Your task to perform on an android device: turn on translation in the chrome app Image 0: 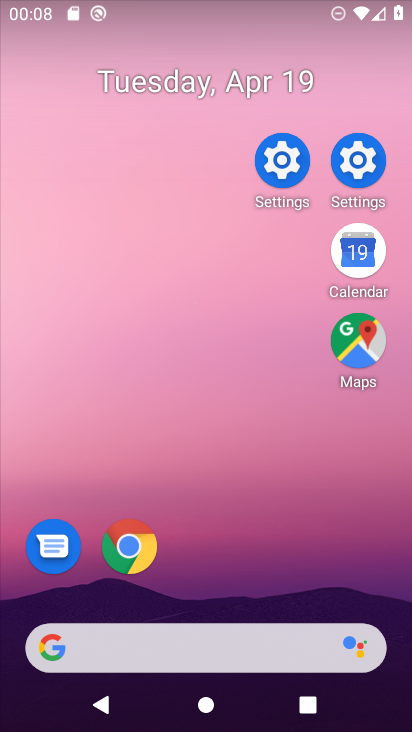
Step 0: drag from (261, 717) to (235, 255)
Your task to perform on an android device: turn on translation in the chrome app Image 1: 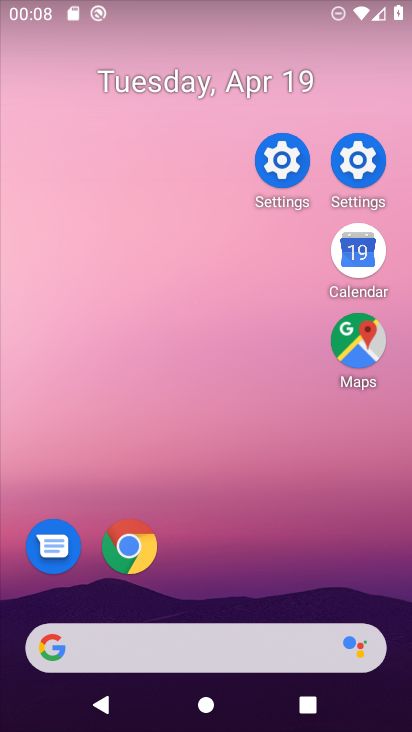
Step 1: drag from (182, 544) to (148, 135)
Your task to perform on an android device: turn on translation in the chrome app Image 2: 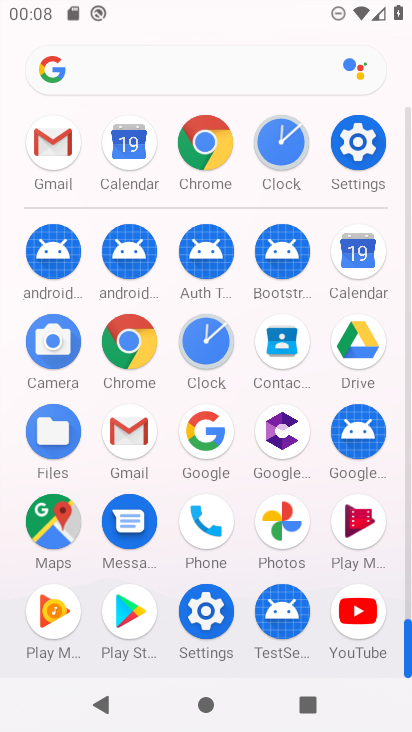
Step 2: click (199, 143)
Your task to perform on an android device: turn on translation in the chrome app Image 3: 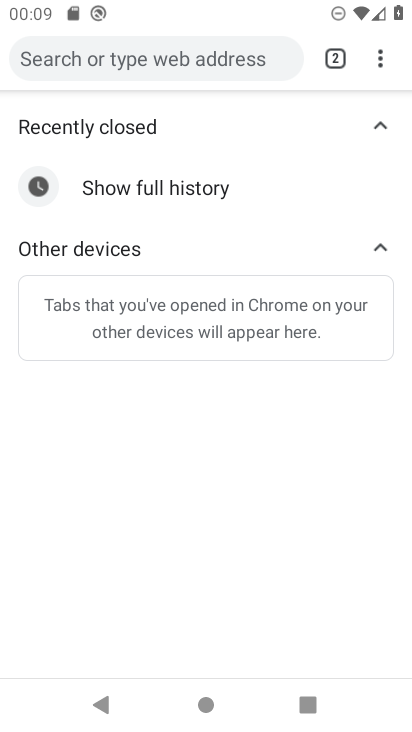
Step 3: click (380, 58)
Your task to perform on an android device: turn on translation in the chrome app Image 4: 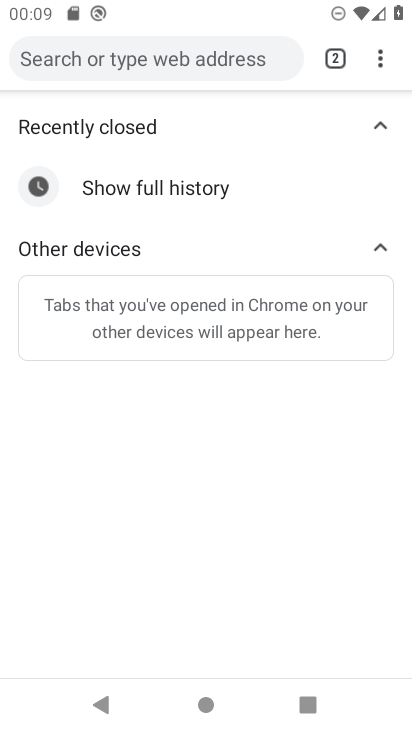
Step 4: click (381, 57)
Your task to perform on an android device: turn on translation in the chrome app Image 5: 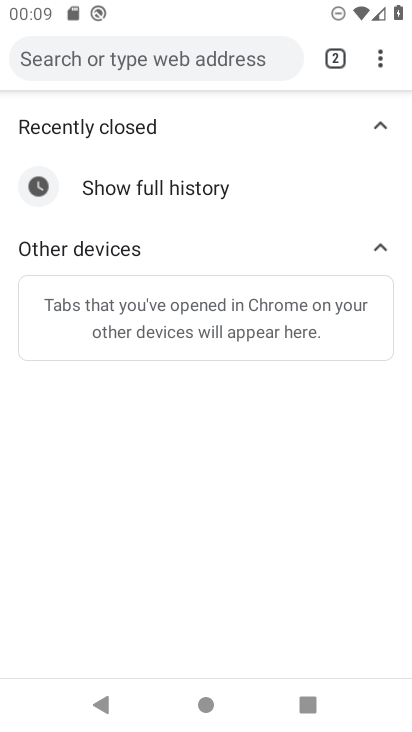
Step 5: click (376, 57)
Your task to perform on an android device: turn on translation in the chrome app Image 6: 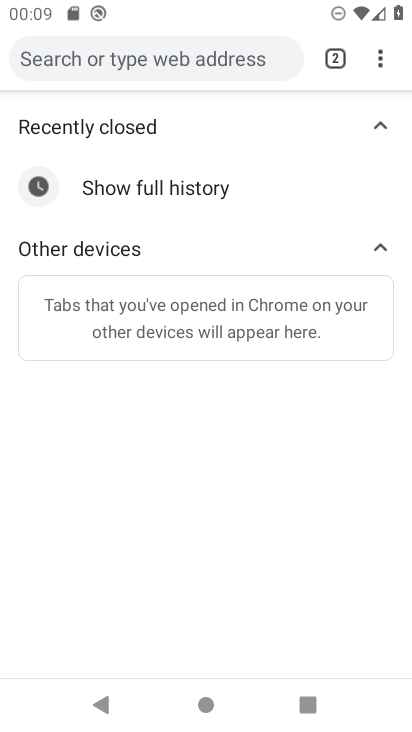
Step 6: click (378, 62)
Your task to perform on an android device: turn on translation in the chrome app Image 7: 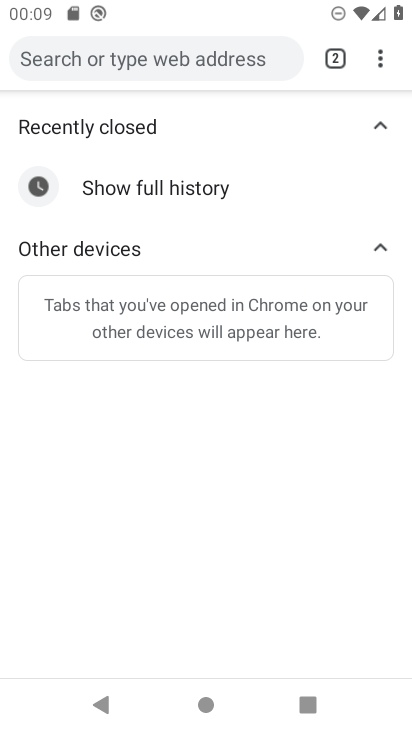
Step 7: click (376, 65)
Your task to perform on an android device: turn on translation in the chrome app Image 8: 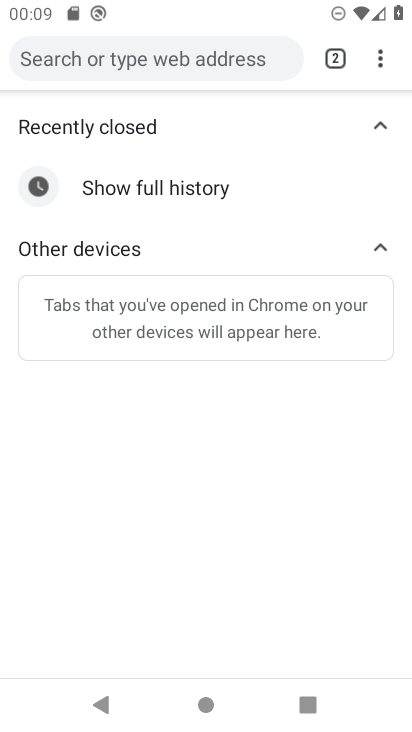
Step 8: click (376, 65)
Your task to perform on an android device: turn on translation in the chrome app Image 9: 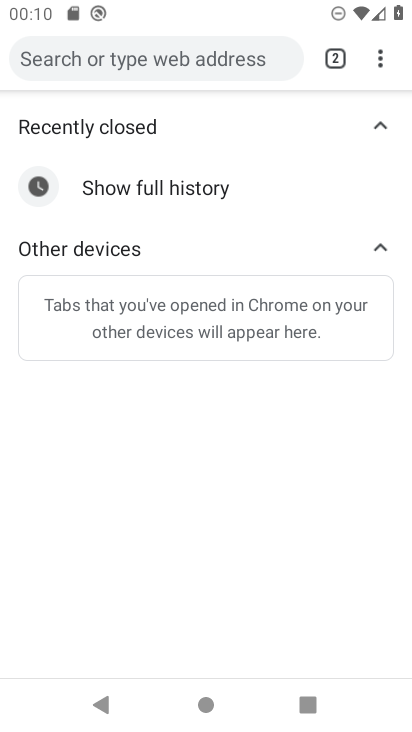
Step 9: click (377, 64)
Your task to perform on an android device: turn on translation in the chrome app Image 10: 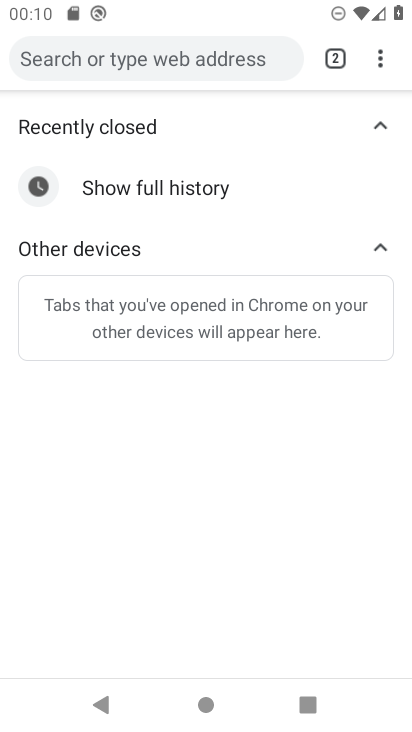
Step 10: click (381, 57)
Your task to perform on an android device: turn on translation in the chrome app Image 11: 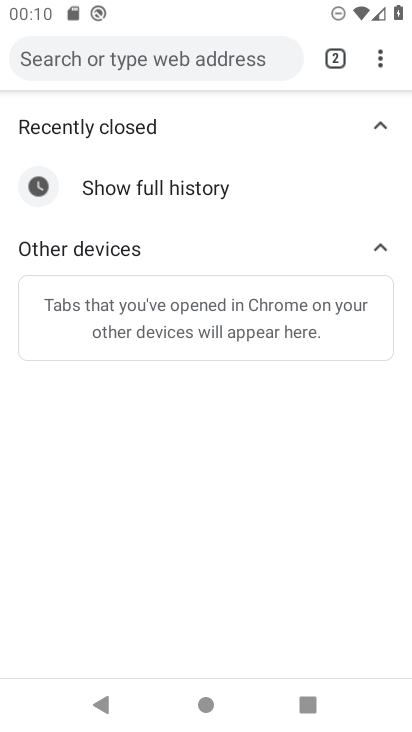
Step 11: click (372, 54)
Your task to perform on an android device: turn on translation in the chrome app Image 12: 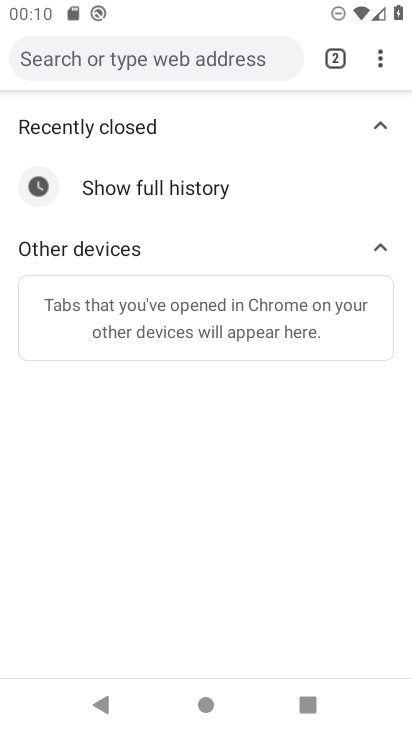
Step 12: click (367, 62)
Your task to perform on an android device: turn on translation in the chrome app Image 13: 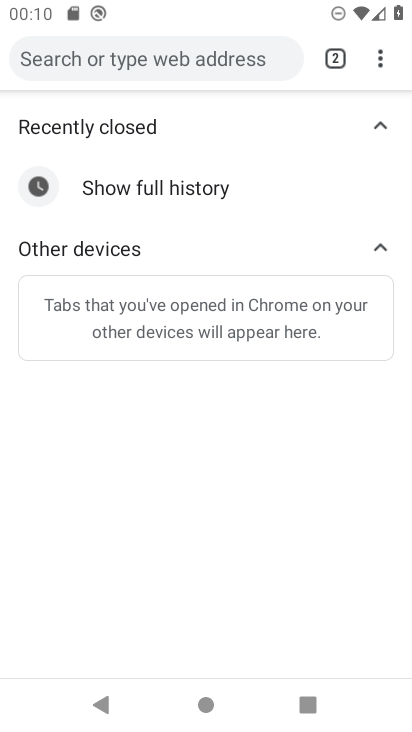
Step 13: click (368, 58)
Your task to perform on an android device: turn on translation in the chrome app Image 14: 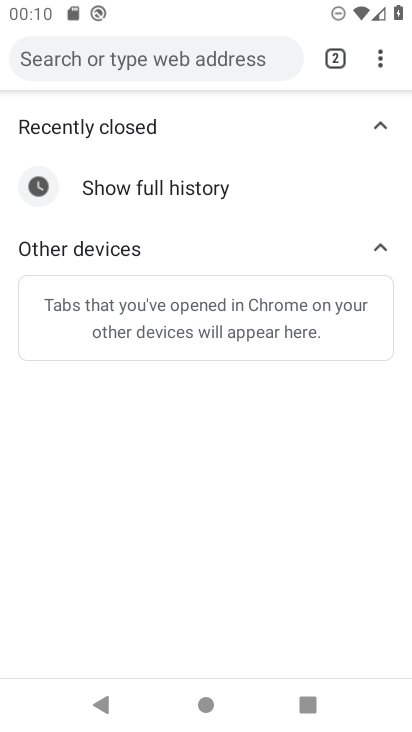
Step 14: click (376, 53)
Your task to perform on an android device: turn on translation in the chrome app Image 15: 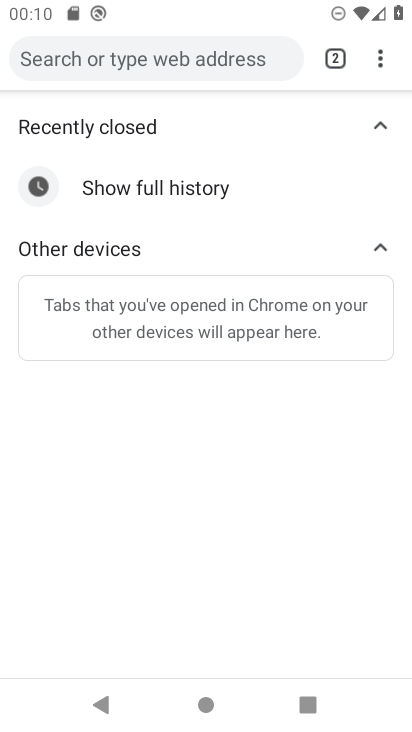
Step 15: click (376, 53)
Your task to perform on an android device: turn on translation in the chrome app Image 16: 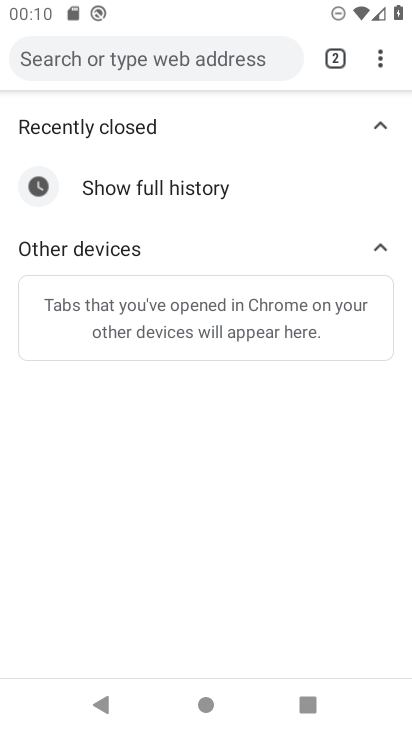
Step 16: click (375, 52)
Your task to perform on an android device: turn on translation in the chrome app Image 17: 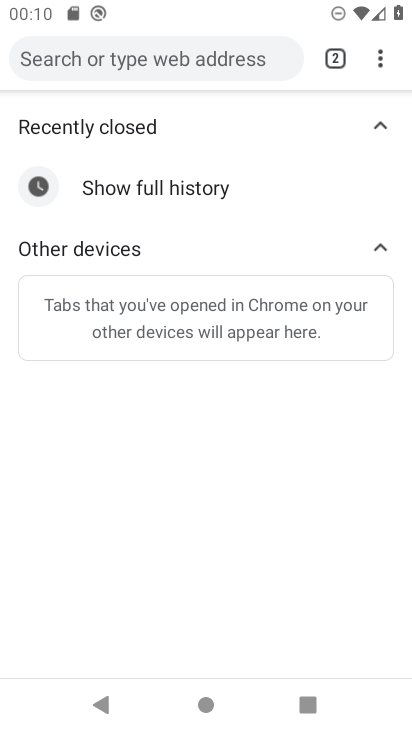
Step 17: click (374, 59)
Your task to perform on an android device: turn on translation in the chrome app Image 18: 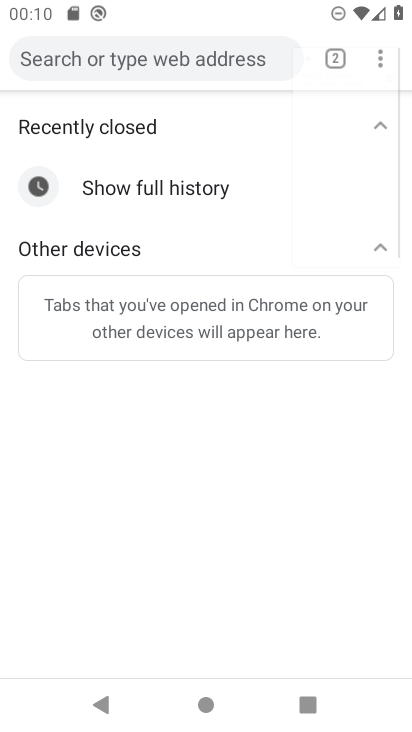
Step 18: click (374, 59)
Your task to perform on an android device: turn on translation in the chrome app Image 19: 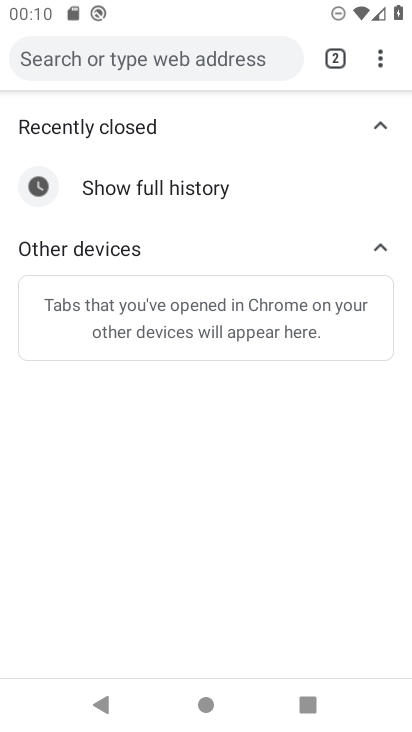
Step 19: click (381, 49)
Your task to perform on an android device: turn on translation in the chrome app Image 20: 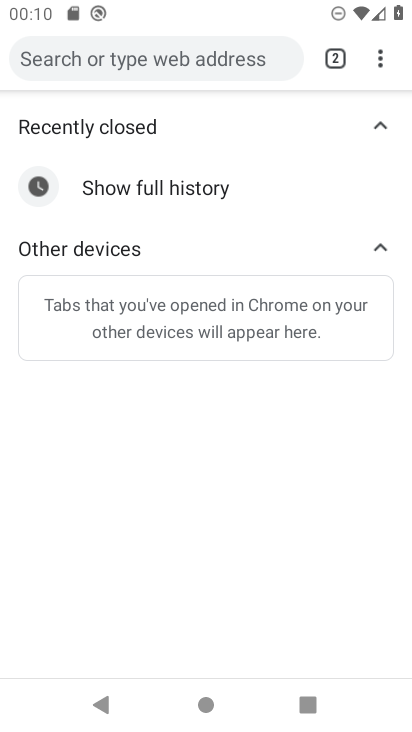
Step 20: click (381, 49)
Your task to perform on an android device: turn on translation in the chrome app Image 21: 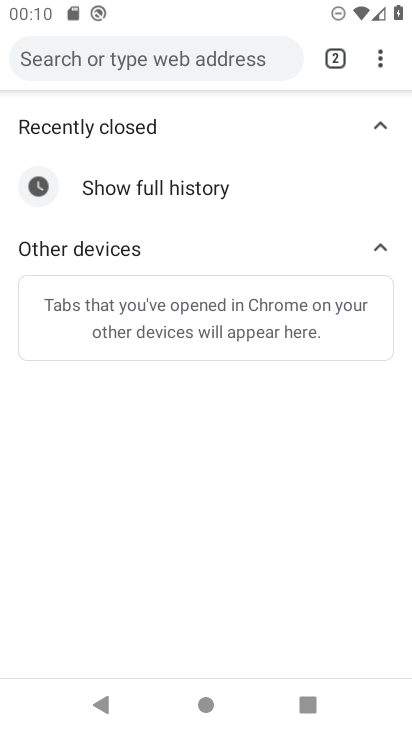
Step 21: click (379, 59)
Your task to perform on an android device: turn on translation in the chrome app Image 22: 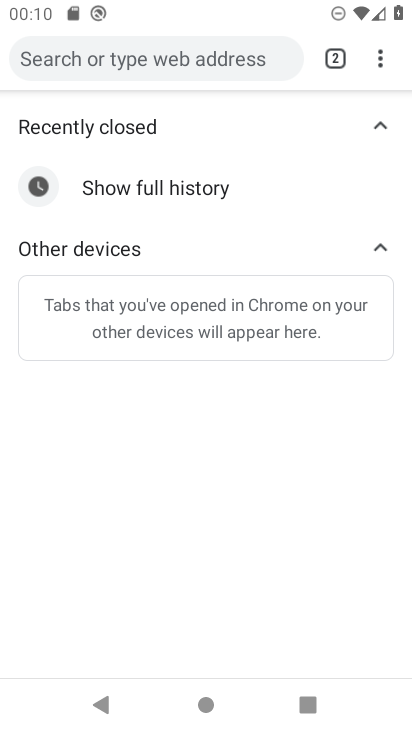
Step 22: click (379, 59)
Your task to perform on an android device: turn on translation in the chrome app Image 23: 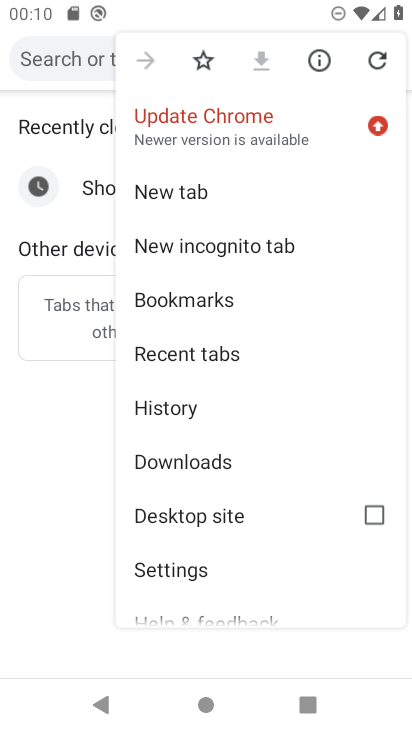
Step 23: drag from (237, 539) to (253, 162)
Your task to perform on an android device: turn on translation in the chrome app Image 24: 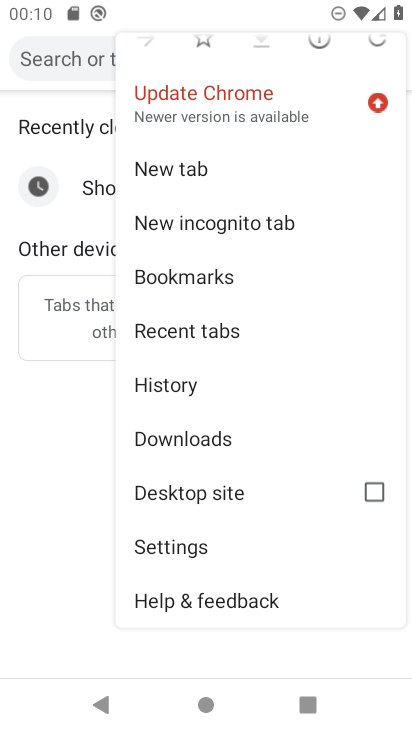
Step 24: click (165, 544)
Your task to perform on an android device: turn on translation in the chrome app Image 25: 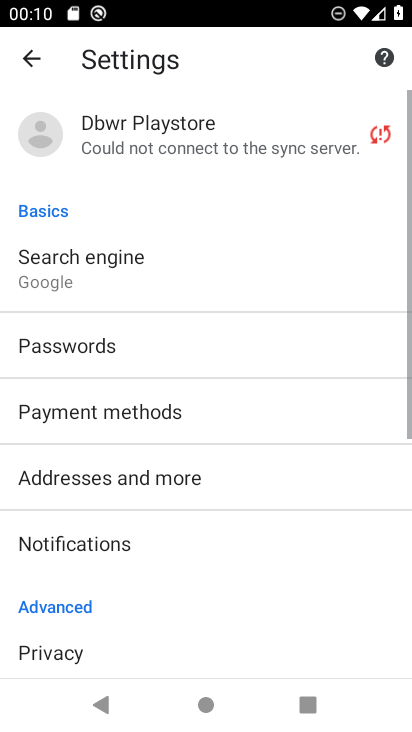
Step 25: drag from (197, 584) to (204, 217)
Your task to perform on an android device: turn on translation in the chrome app Image 26: 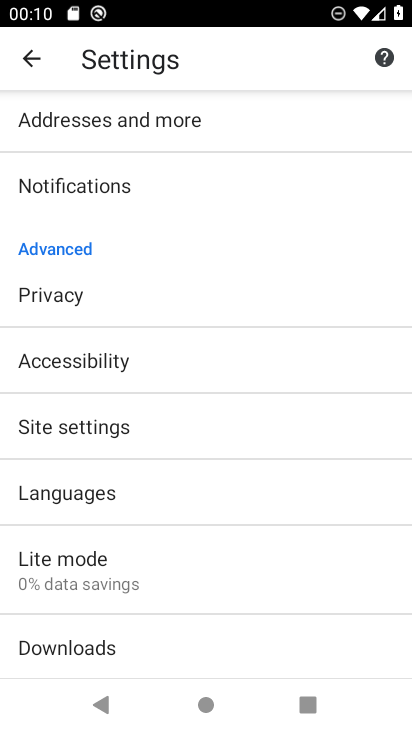
Step 26: click (85, 427)
Your task to perform on an android device: turn on translation in the chrome app Image 27: 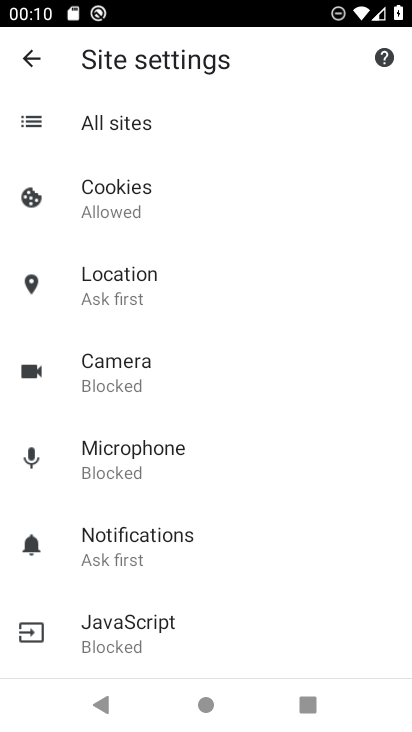
Step 27: drag from (186, 534) to (252, 241)
Your task to perform on an android device: turn on translation in the chrome app Image 28: 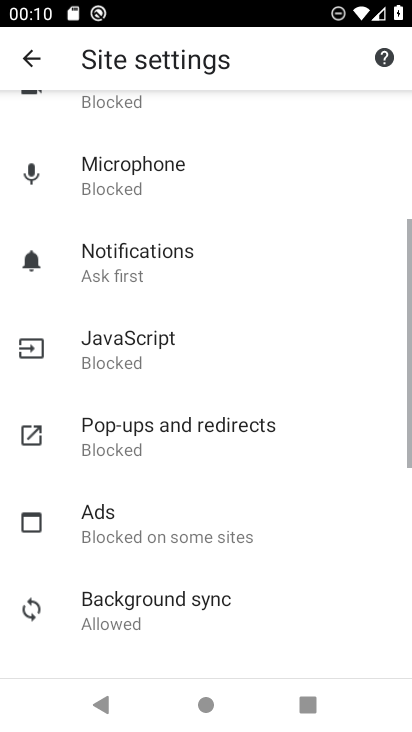
Step 28: drag from (142, 503) to (163, 269)
Your task to perform on an android device: turn on translation in the chrome app Image 29: 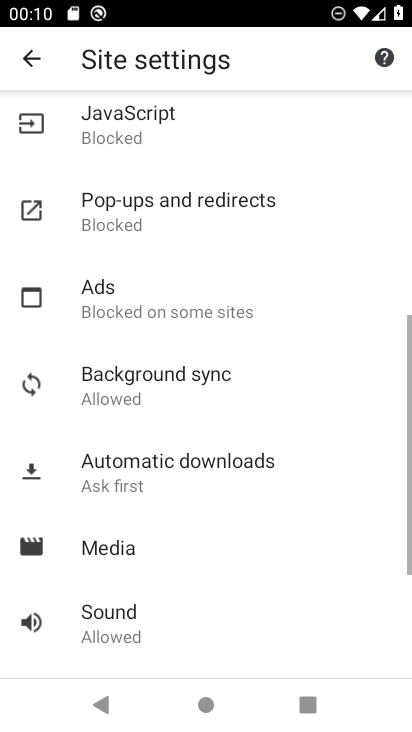
Step 29: drag from (114, 620) to (130, 233)
Your task to perform on an android device: turn on translation in the chrome app Image 30: 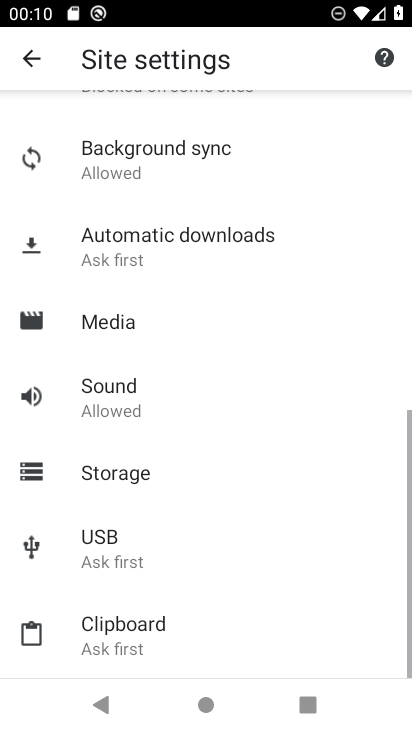
Step 30: drag from (195, 224) to (195, 689)
Your task to perform on an android device: turn on translation in the chrome app Image 31: 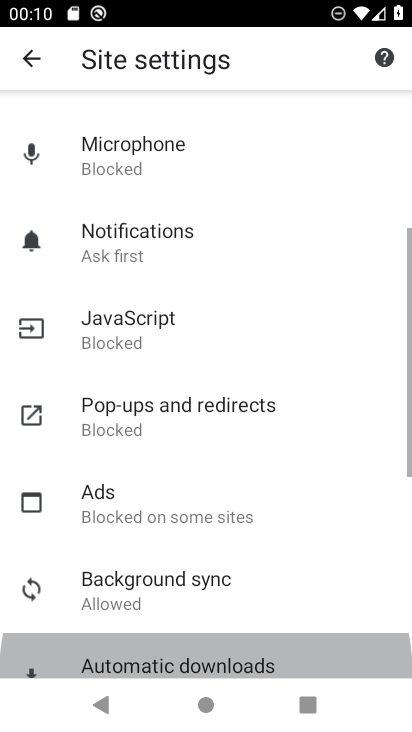
Step 31: drag from (180, 675) to (213, 713)
Your task to perform on an android device: turn on translation in the chrome app Image 32: 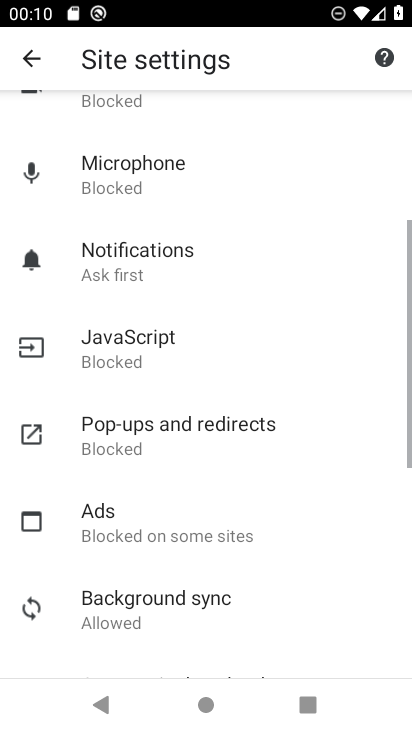
Step 32: click (255, 706)
Your task to perform on an android device: turn on translation in the chrome app Image 33: 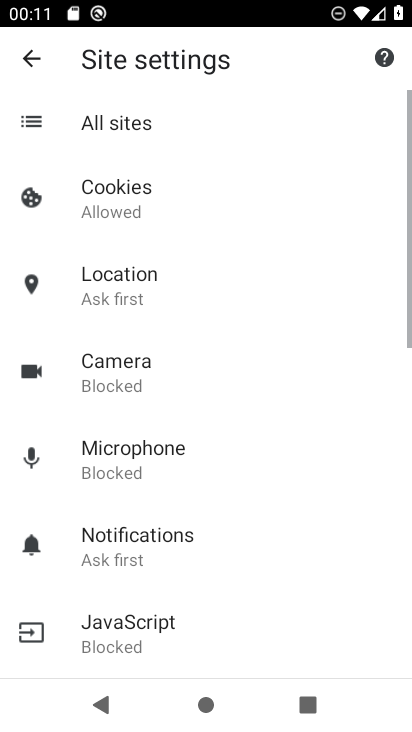
Step 33: click (24, 63)
Your task to perform on an android device: turn on translation in the chrome app Image 34: 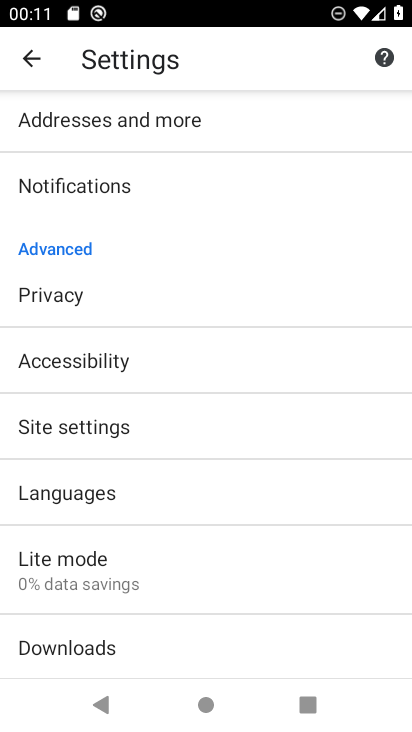
Step 34: click (58, 481)
Your task to perform on an android device: turn on translation in the chrome app Image 35: 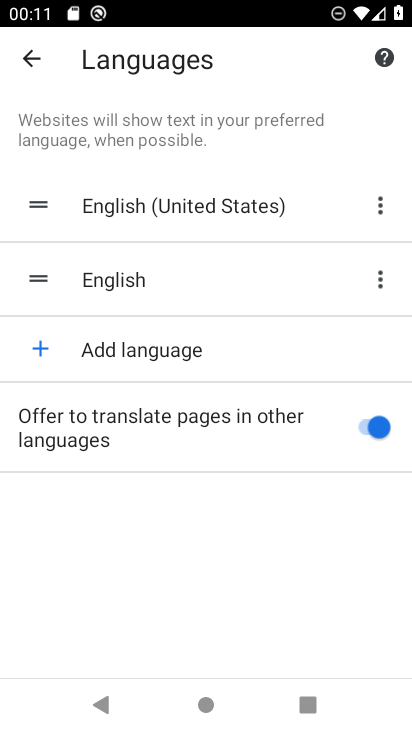
Step 35: click (373, 418)
Your task to perform on an android device: turn on translation in the chrome app Image 36: 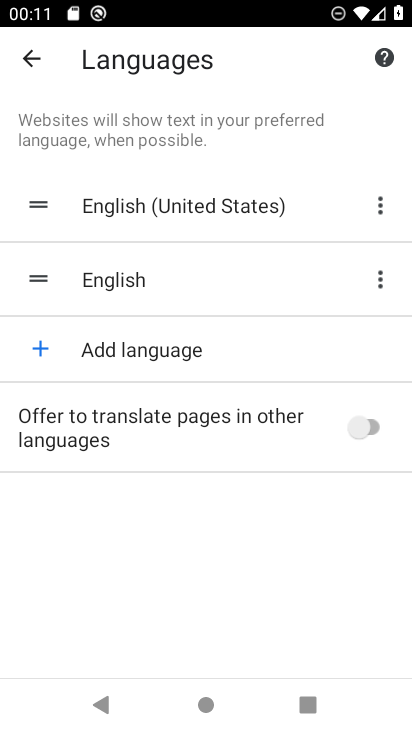
Step 36: task complete